Your task to perform on an android device: check storage Image 0: 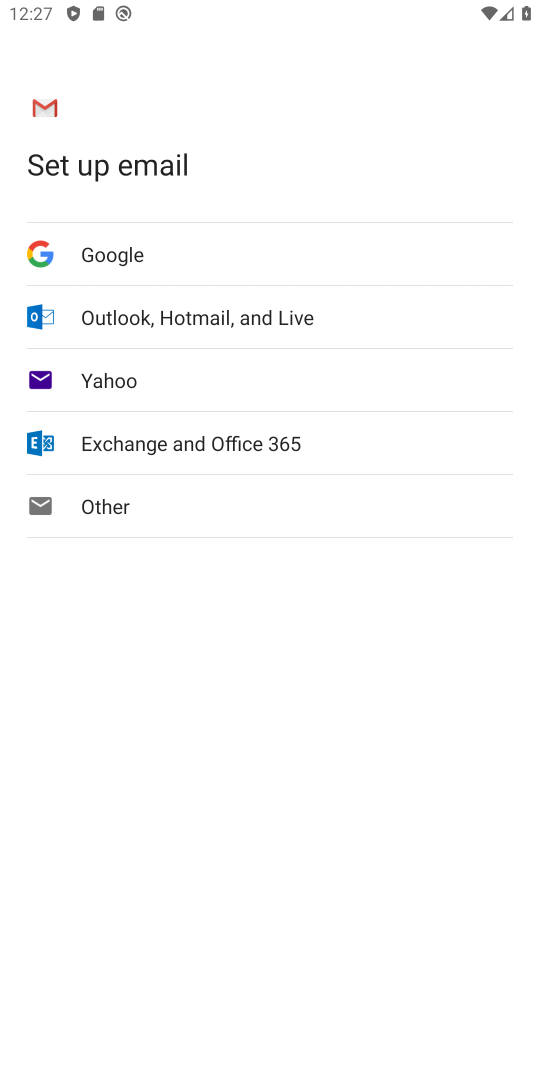
Step 0: press home button
Your task to perform on an android device: check storage Image 1: 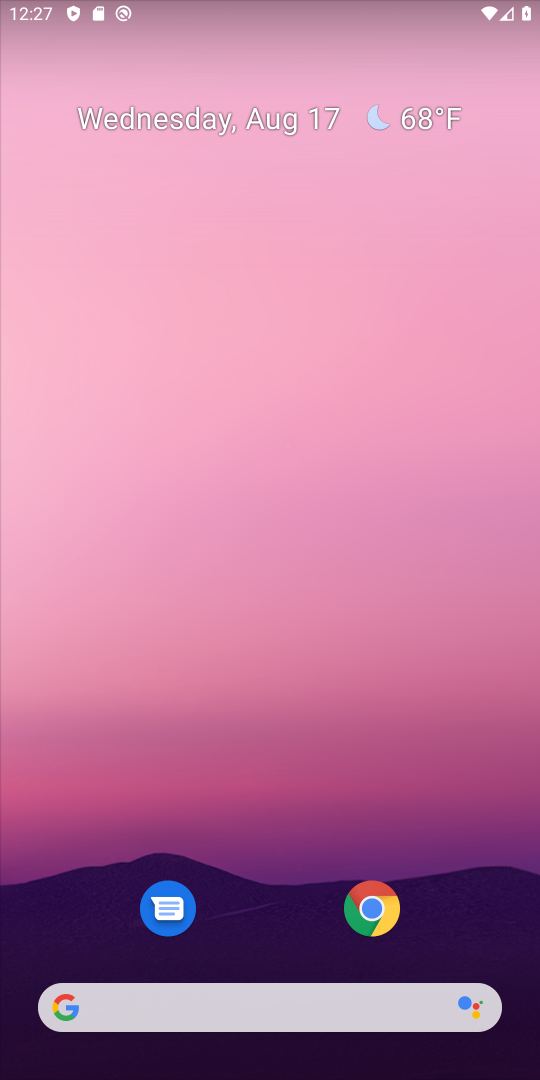
Step 1: drag from (268, 863) to (290, 287)
Your task to perform on an android device: check storage Image 2: 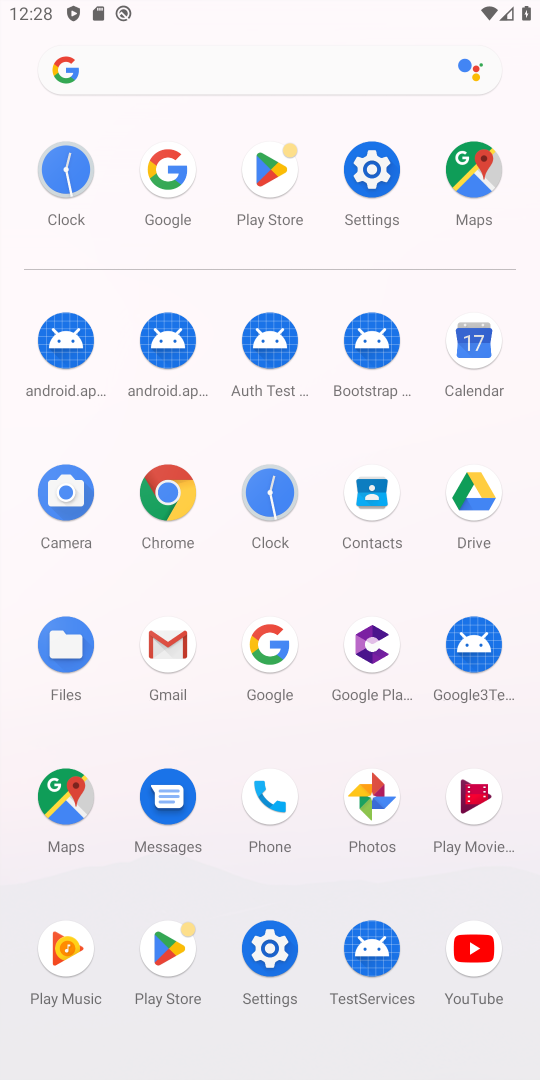
Step 2: click (368, 165)
Your task to perform on an android device: check storage Image 3: 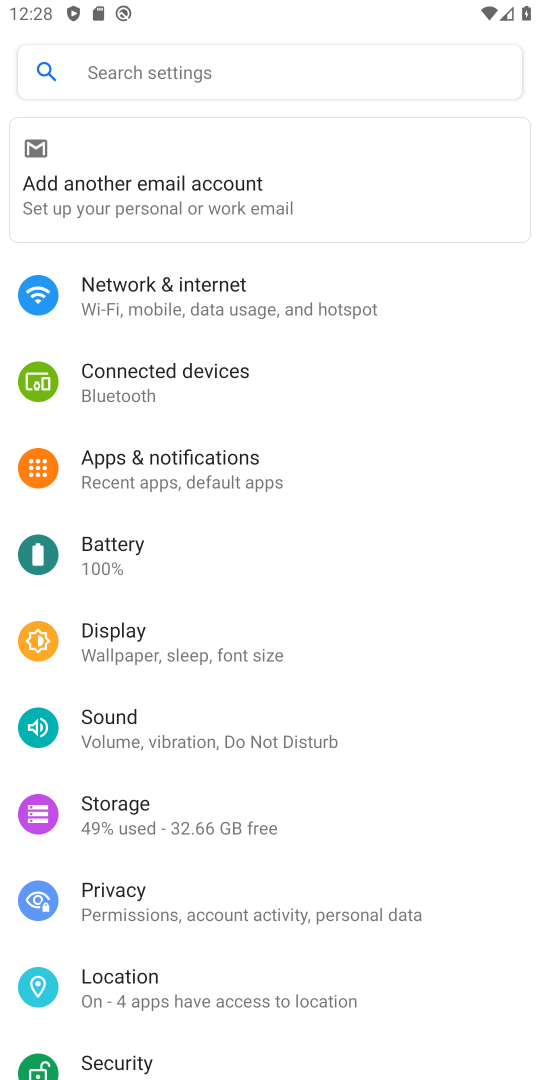
Step 3: click (149, 801)
Your task to perform on an android device: check storage Image 4: 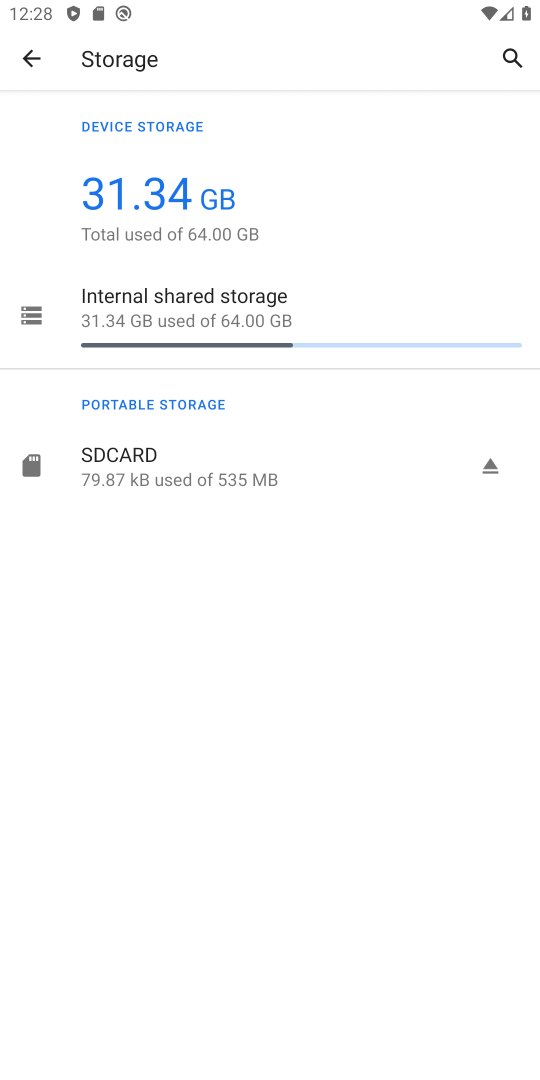
Step 4: task complete